Your task to perform on an android device: check battery use Image 0: 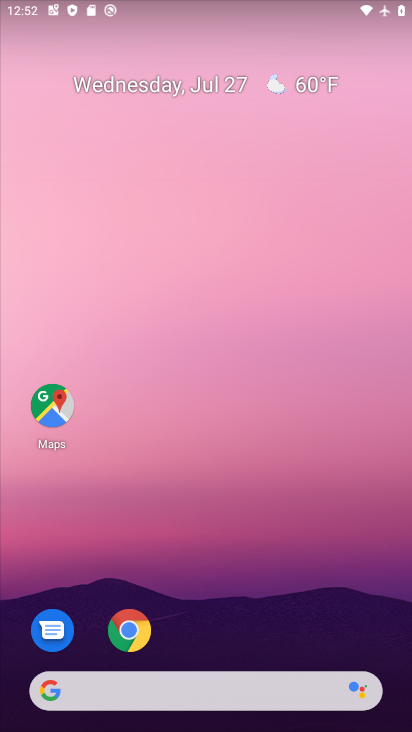
Step 0: press home button
Your task to perform on an android device: check battery use Image 1: 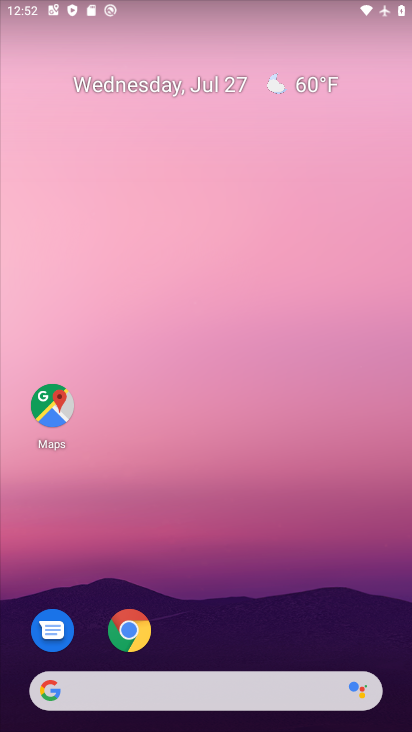
Step 1: drag from (267, 264) to (293, 63)
Your task to perform on an android device: check battery use Image 2: 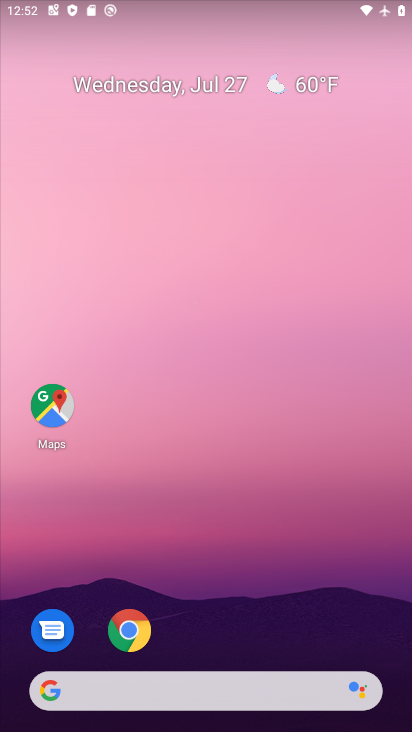
Step 2: drag from (264, 647) to (283, 53)
Your task to perform on an android device: check battery use Image 3: 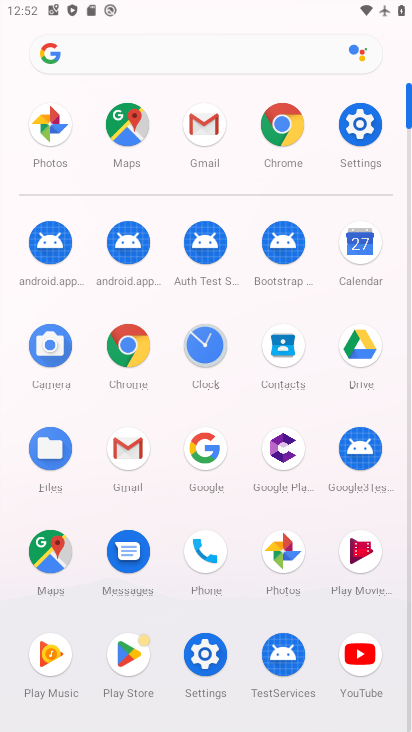
Step 3: click (372, 128)
Your task to perform on an android device: check battery use Image 4: 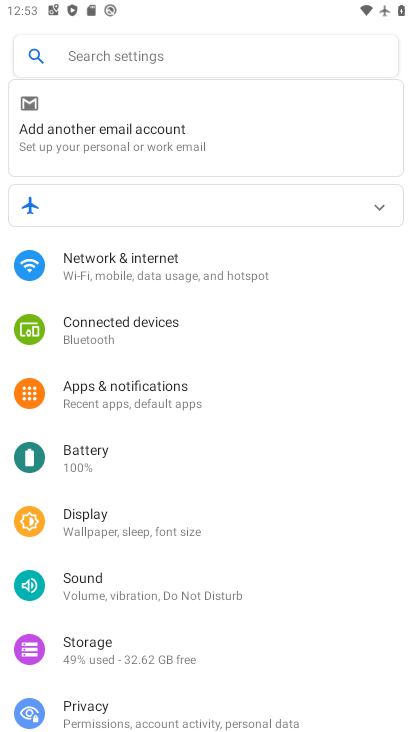
Step 4: click (83, 458)
Your task to perform on an android device: check battery use Image 5: 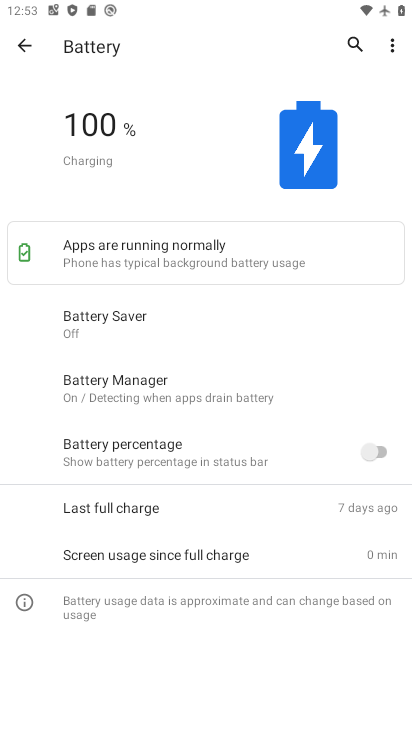
Step 5: click (395, 54)
Your task to perform on an android device: check battery use Image 6: 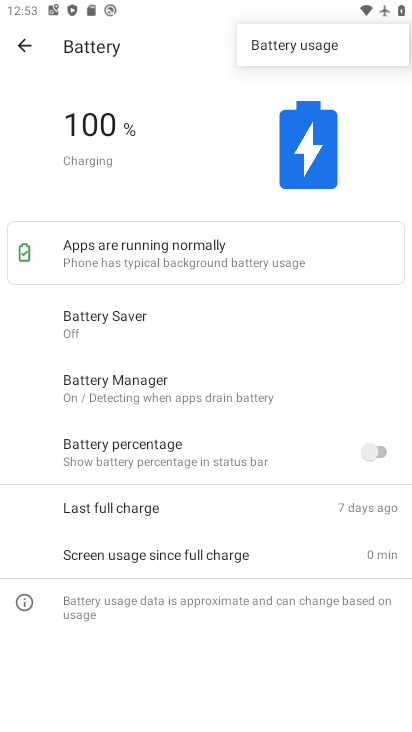
Step 6: click (288, 47)
Your task to perform on an android device: check battery use Image 7: 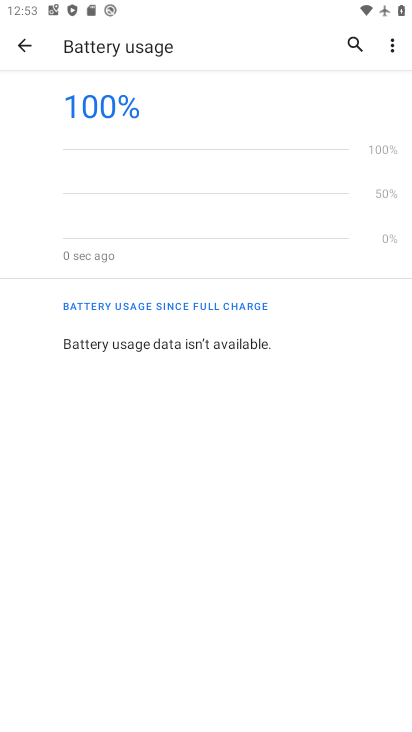
Step 7: task complete